Your task to perform on an android device: change notifications settings Image 0: 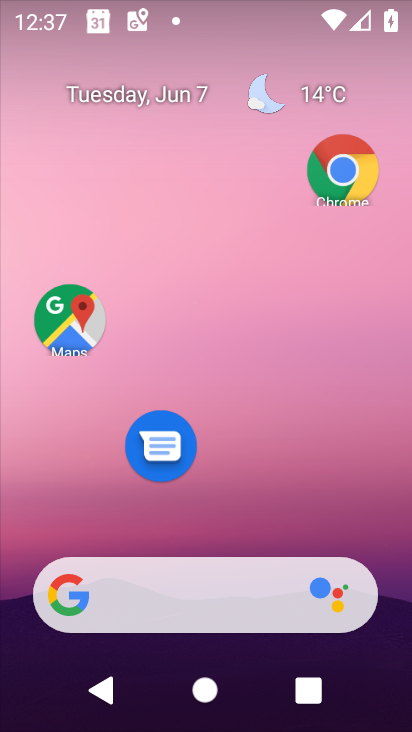
Step 0: drag from (174, 547) to (280, 65)
Your task to perform on an android device: change notifications settings Image 1: 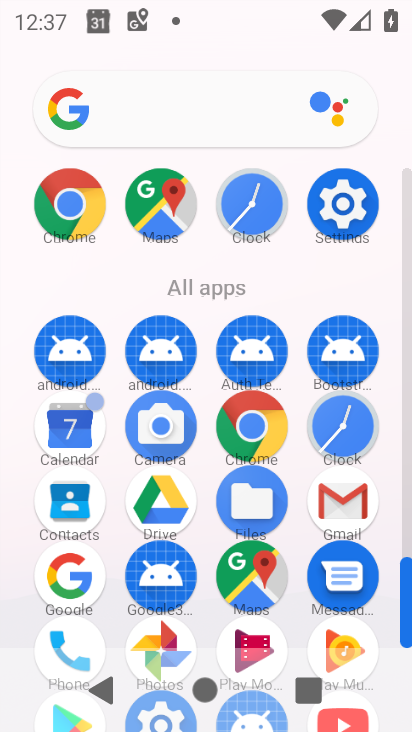
Step 1: click (346, 203)
Your task to perform on an android device: change notifications settings Image 2: 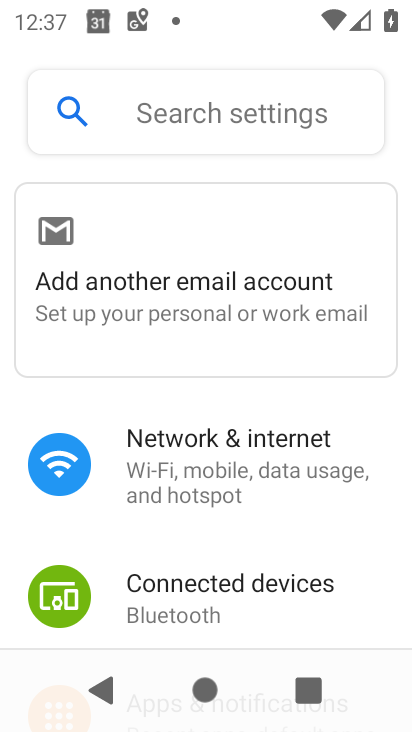
Step 2: drag from (220, 583) to (275, 284)
Your task to perform on an android device: change notifications settings Image 3: 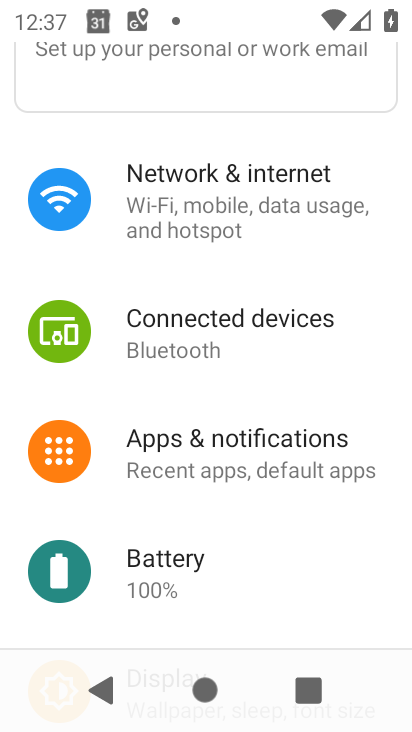
Step 3: click (216, 462)
Your task to perform on an android device: change notifications settings Image 4: 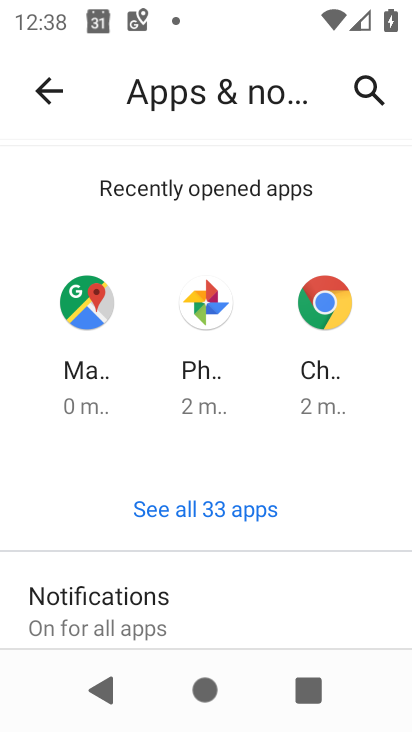
Step 4: drag from (192, 618) to (249, 137)
Your task to perform on an android device: change notifications settings Image 5: 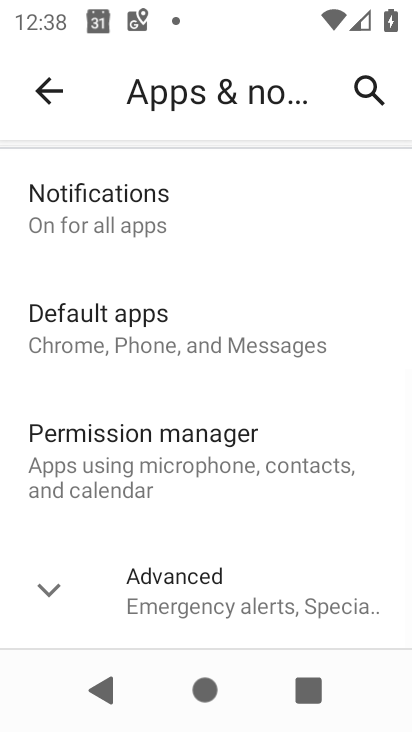
Step 5: click (153, 200)
Your task to perform on an android device: change notifications settings Image 6: 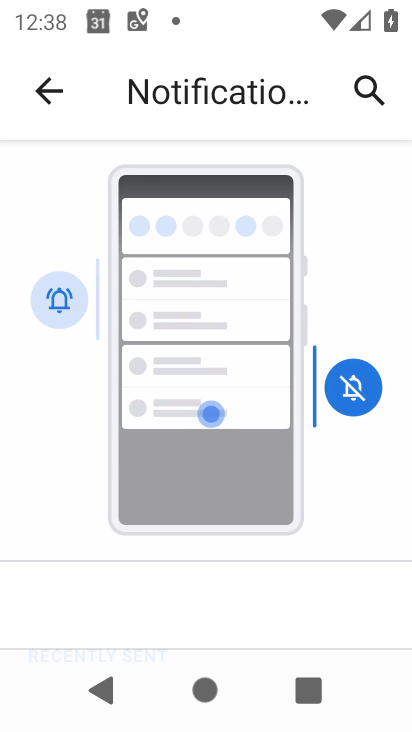
Step 6: drag from (228, 600) to (260, 180)
Your task to perform on an android device: change notifications settings Image 7: 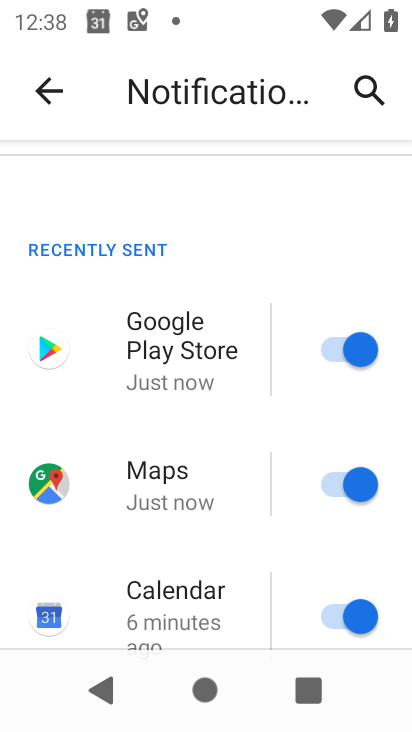
Step 7: drag from (142, 620) to (215, 107)
Your task to perform on an android device: change notifications settings Image 8: 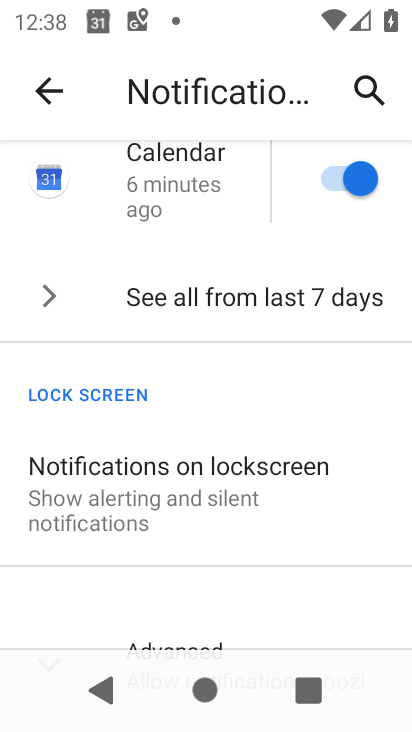
Step 8: drag from (206, 594) to (259, 107)
Your task to perform on an android device: change notifications settings Image 9: 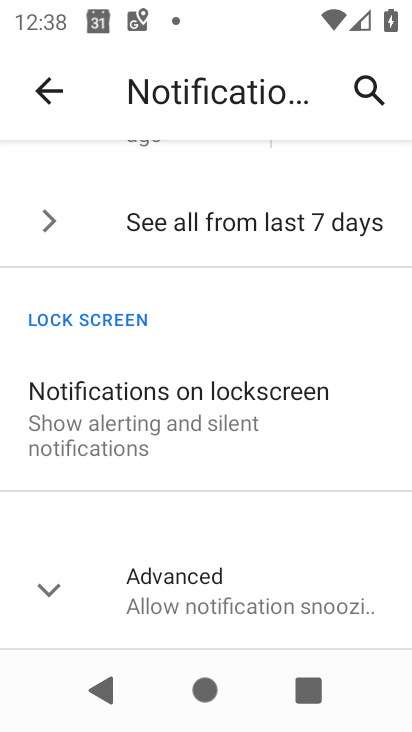
Step 9: click (160, 605)
Your task to perform on an android device: change notifications settings Image 10: 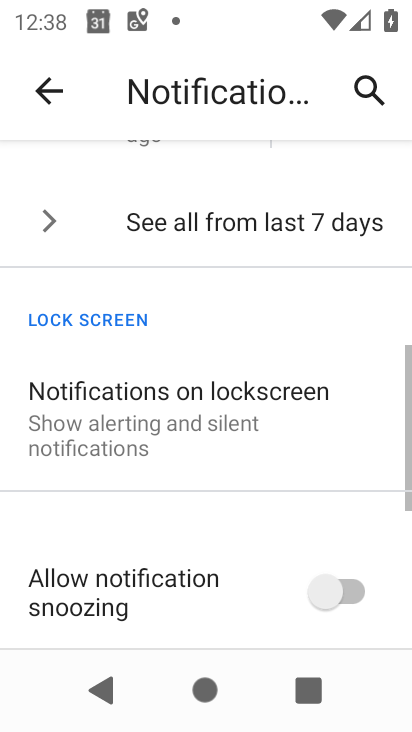
Step 10: click (347, 579)
Your task to perform on an android device: change notifications settings Image 11: 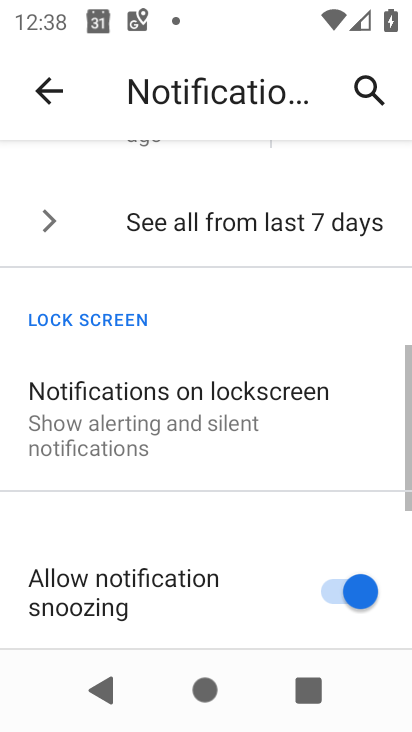
Step 11: task complete